Your task to perform on an android device: Open Yahoo.com Image 0: 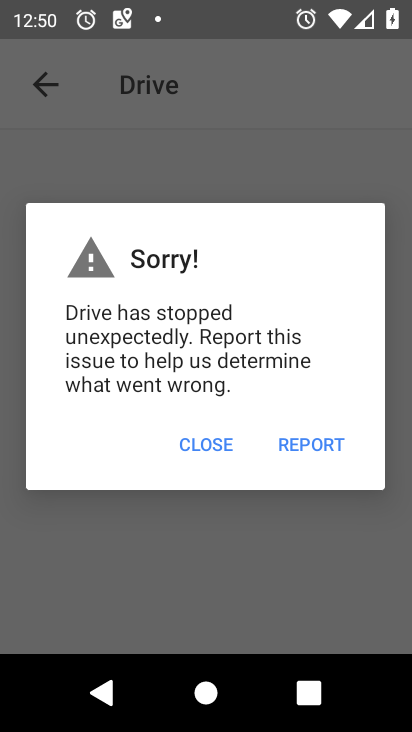
Step 0: press home button
Your task to perform on an android device: Open Yahoo.com Image 1: 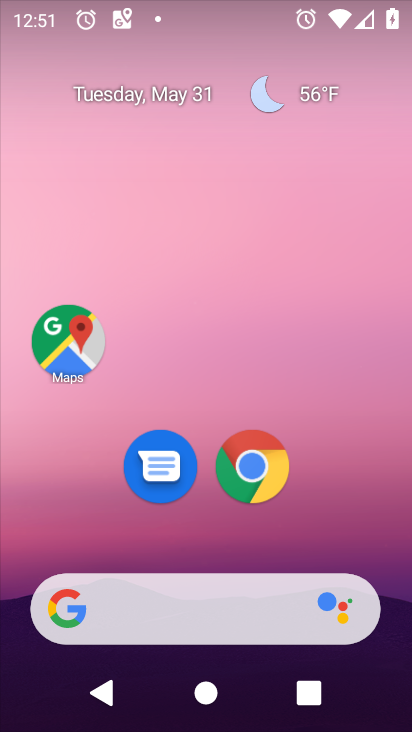
Step 1: click (270, 478)
Your task to perform on an android device: Open Yahoo.com Image 2: 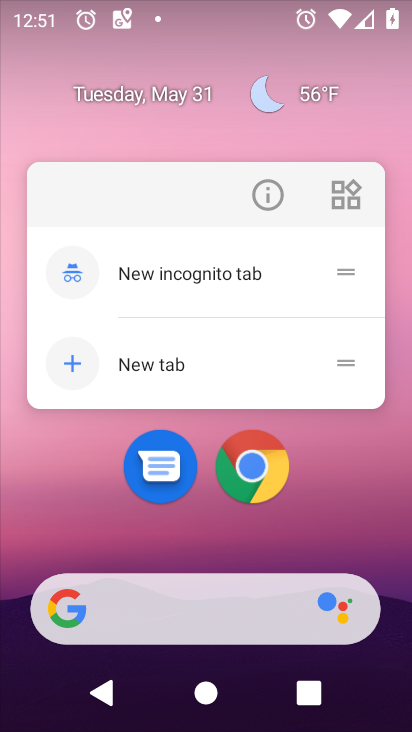
Step 2: click (243, 483)
Your task to perform on an android device: Open Yahoo.com Image 3: 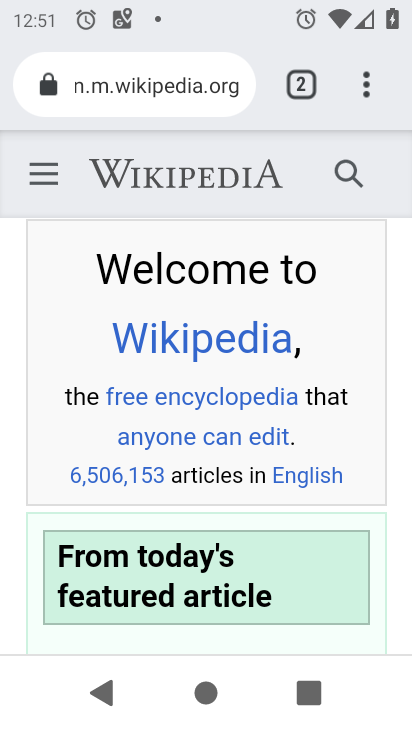
Step 3: click (168, 70)
Your task to perform on an android device: Open Yahoo.com Image 4: 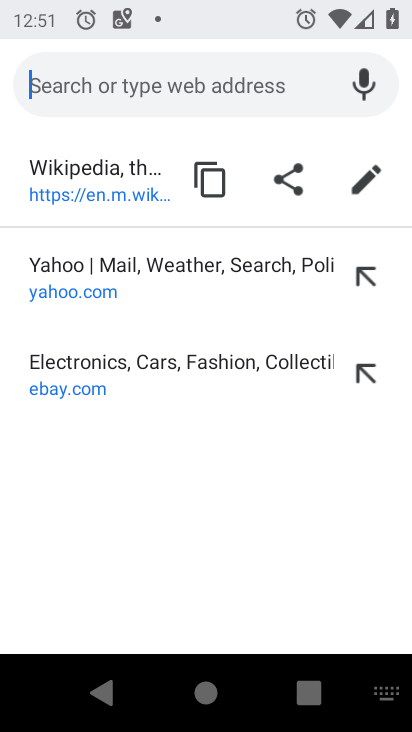
Step 4: click (205, 252)
Your task to perform on an android device: Open Yahoo.com Image 5: 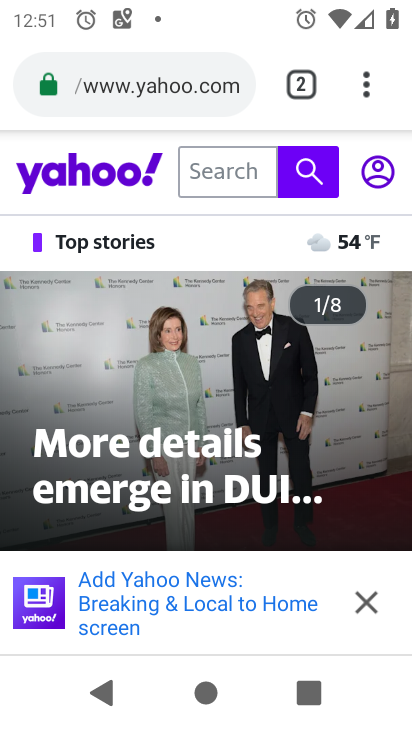
Step 5: task complete